Your task to perform on an android device: turn off improve location accuracy Image 0: 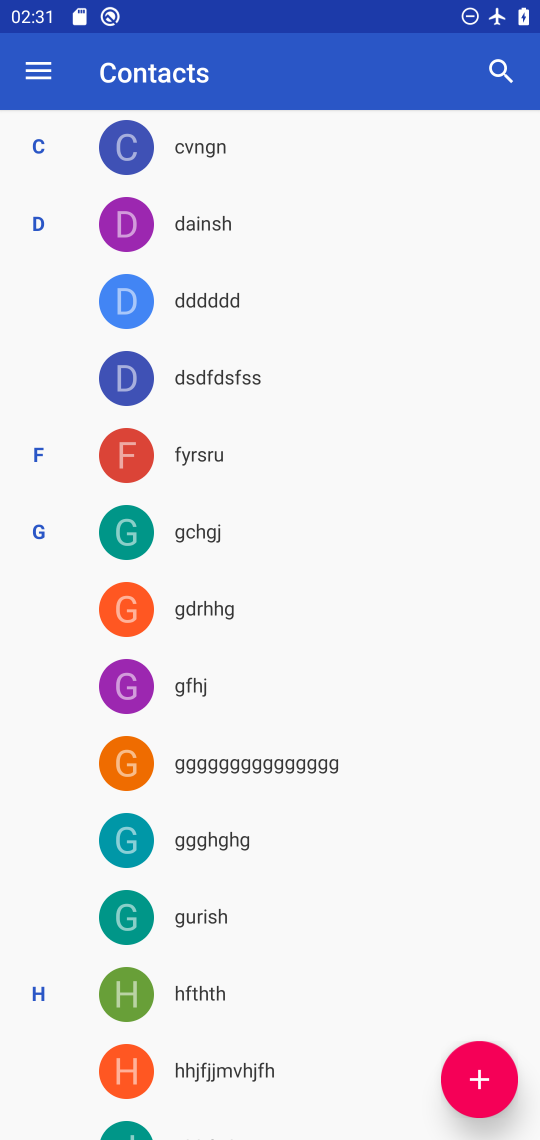
Step 0: press home button
Your task to perform on an android device: turn off improve location accuracy Image 1: 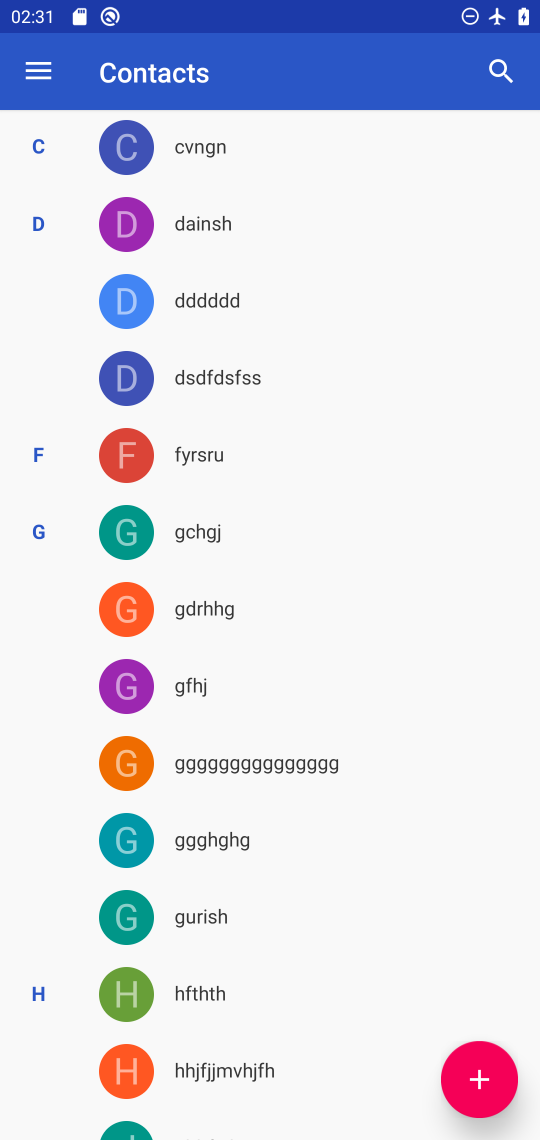
Step 1: press home button
Your task to perform on an android device: turn off improve location accuracy Image 2: 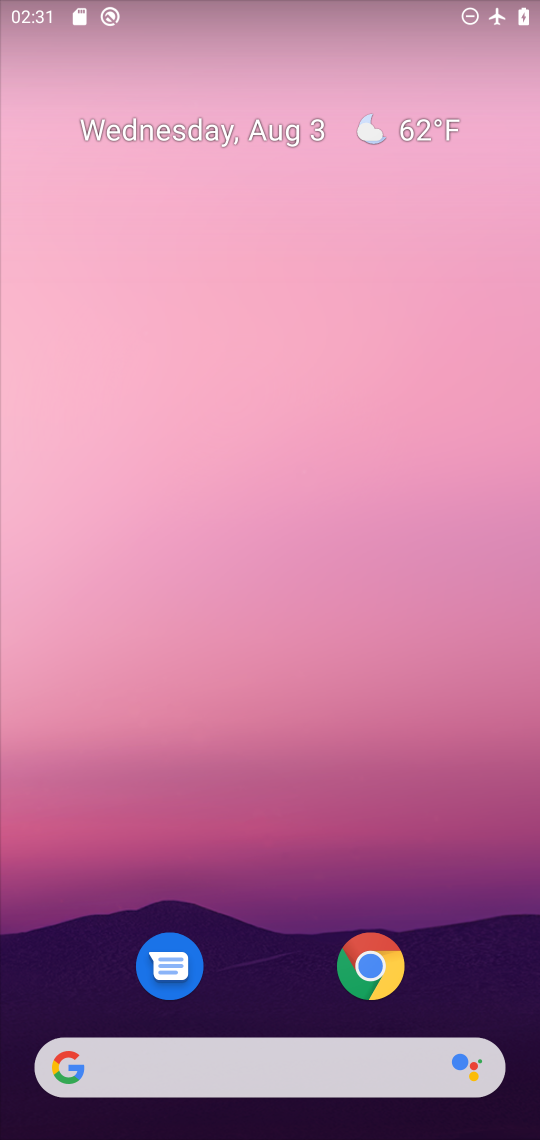
Step 2: drag from (284, 972) to (272, 342)
Your task to perform on an android device: turn off improve location accuracy Image 3: 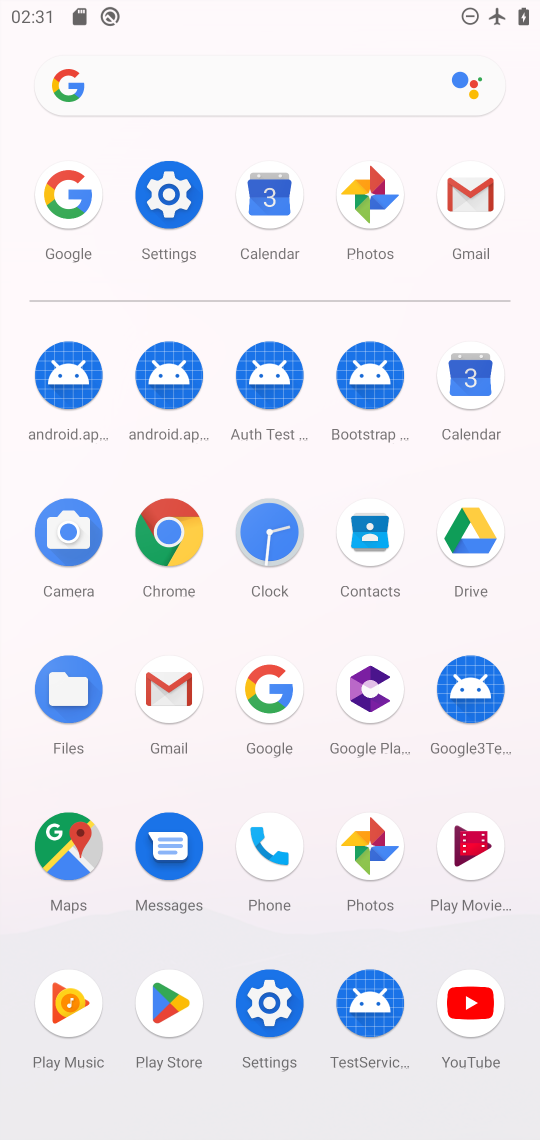
Step 3: click (204, 219)
Your task to perform on an android device: turn off improve location accuracy Image 4: 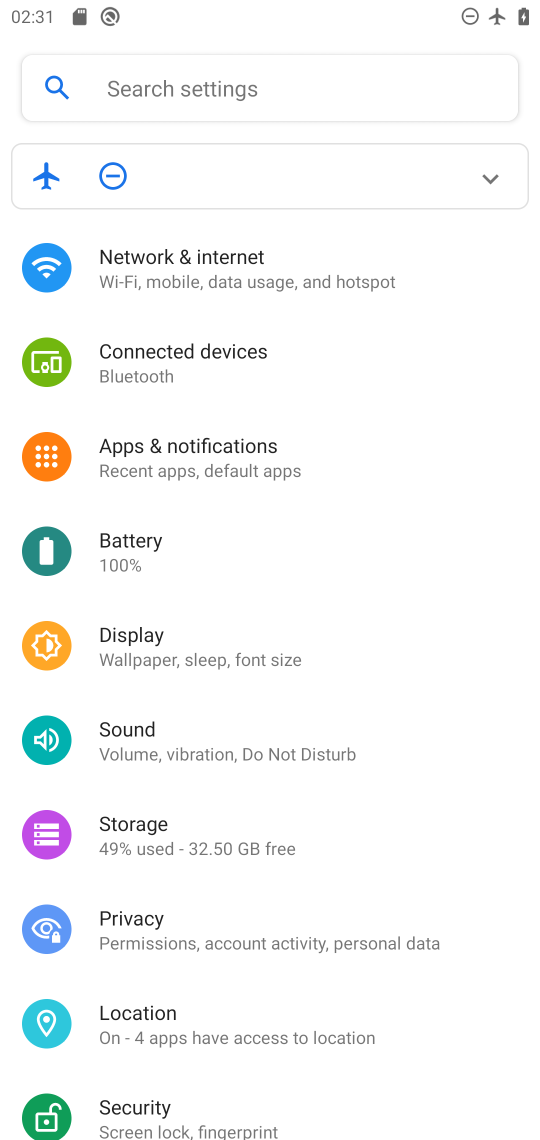
Step 4: click (223, 1005)
Your task to perform on an android device: turn off improve location accuracy Image 5: 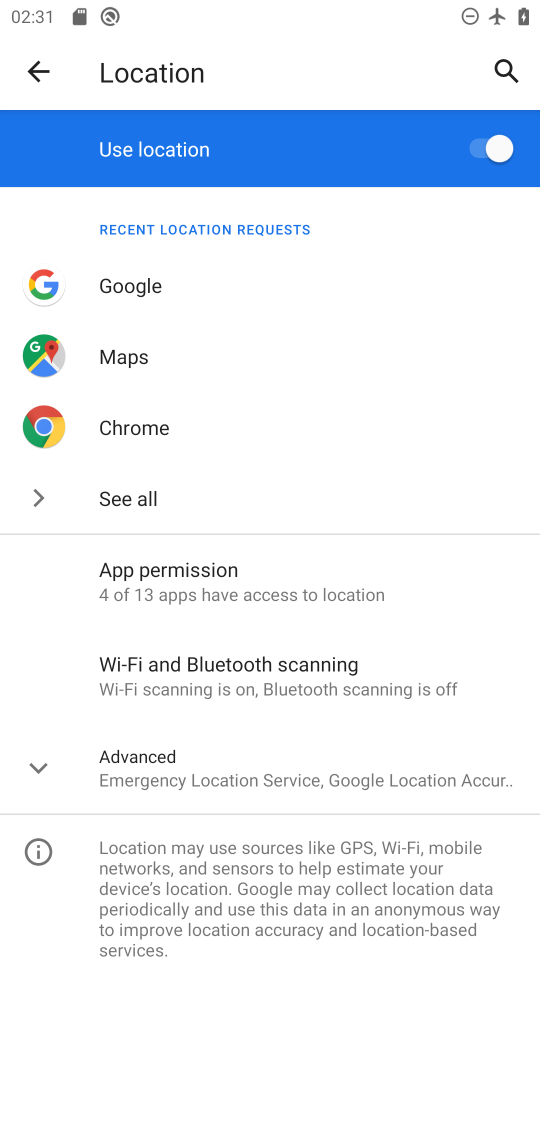
Step 5: click (171, 800)
Your task to perform on an android device: turn off improve location accuracy Image 6: 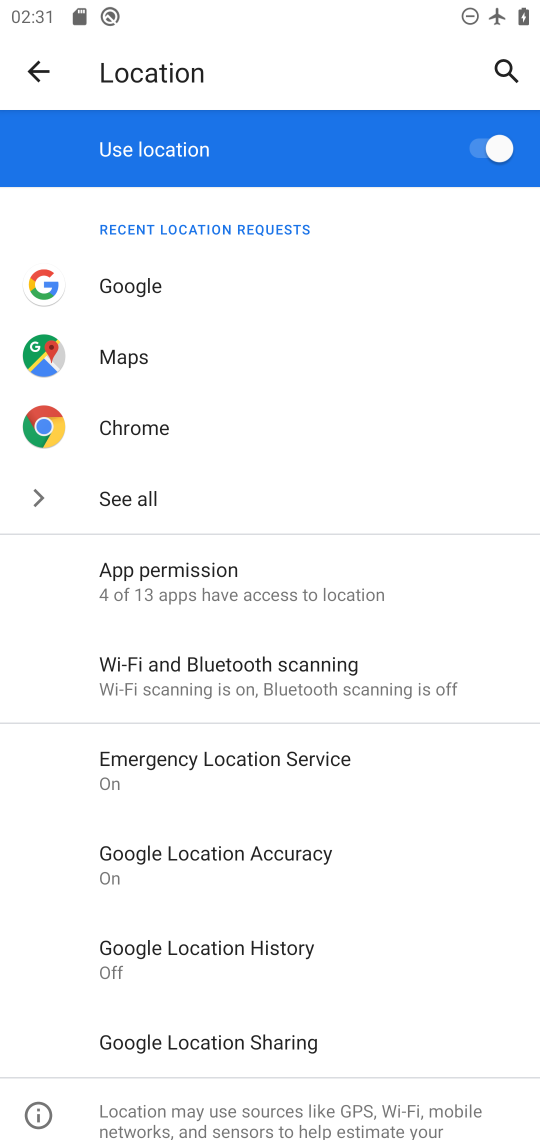
Step 6: click (292, 878)
Your task to perform on an android device: turn off improve location accuracy Image 7: 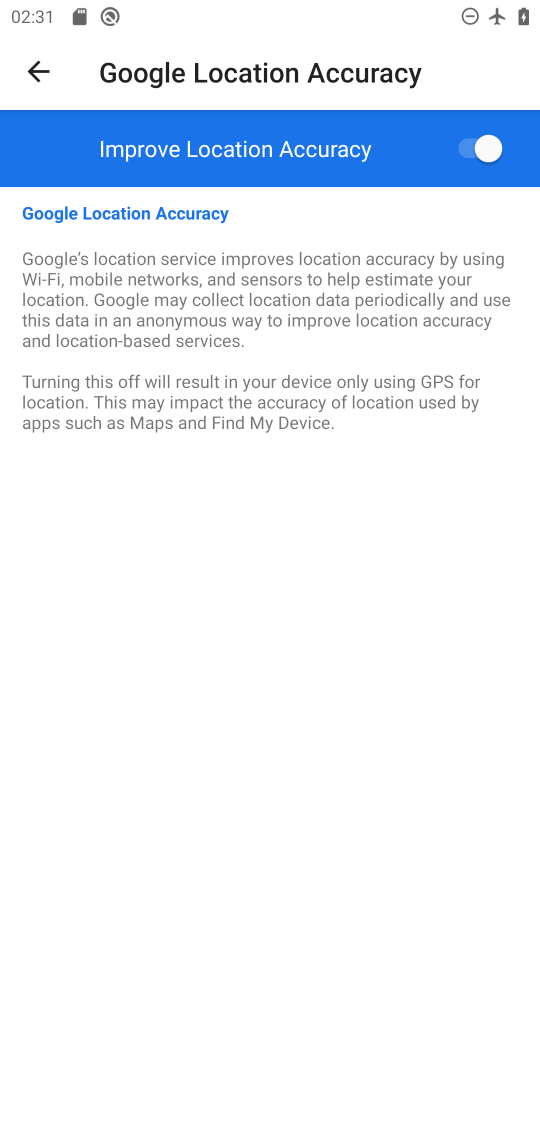
Step 7: click (470, 146)
Your task to perform on an android device: turn off improve location accuracy Image 8: 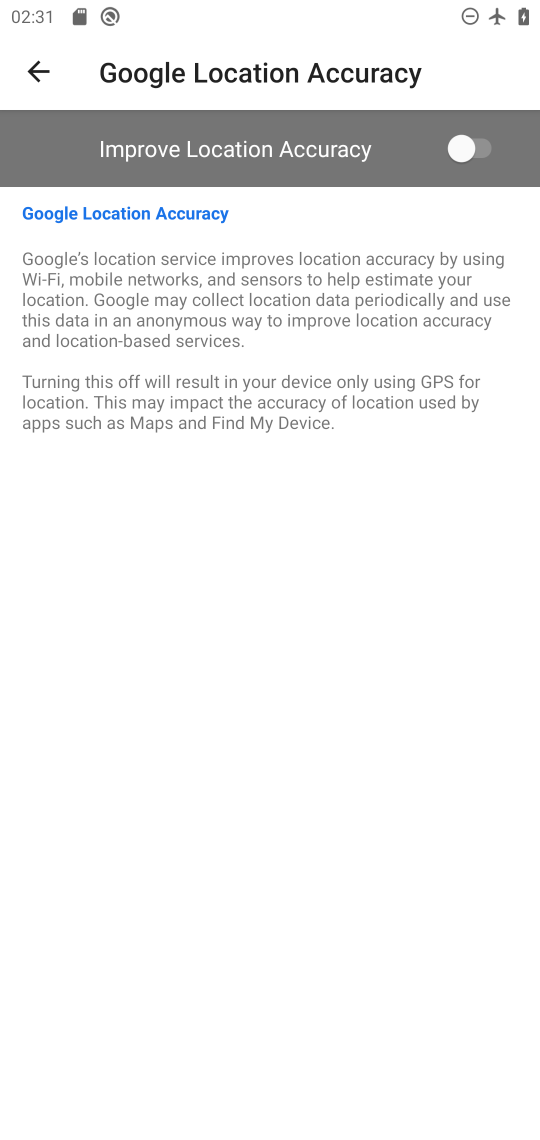
Step 8: task complete